Your task to perform on an android device: turn vacation reply on in the gmail app Image 0: 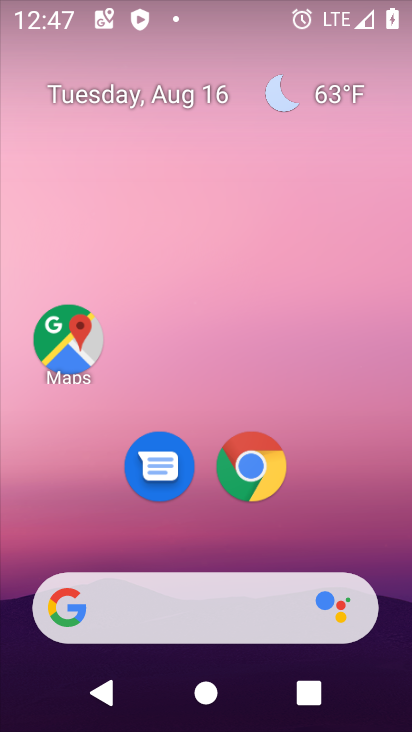
Step 0: drag from (227, 543) to (213, 207)
Your task to perform on an android device: turn vacation reply on in the gmail app Image 1: 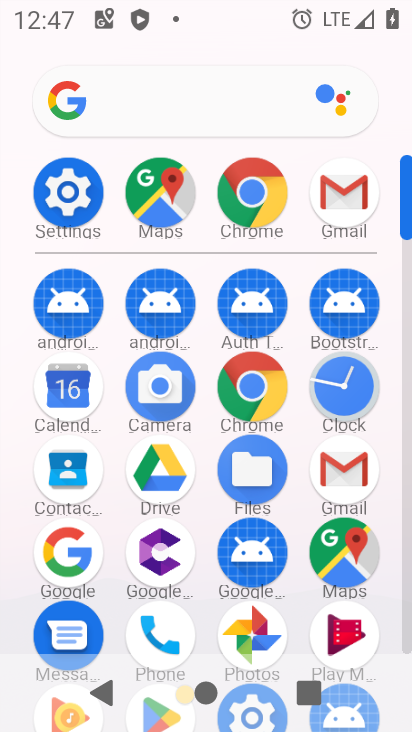
Step 1: click (344, 464)
Your task to perform on an android device: turn vacation reply on in the gmail app Image 2: 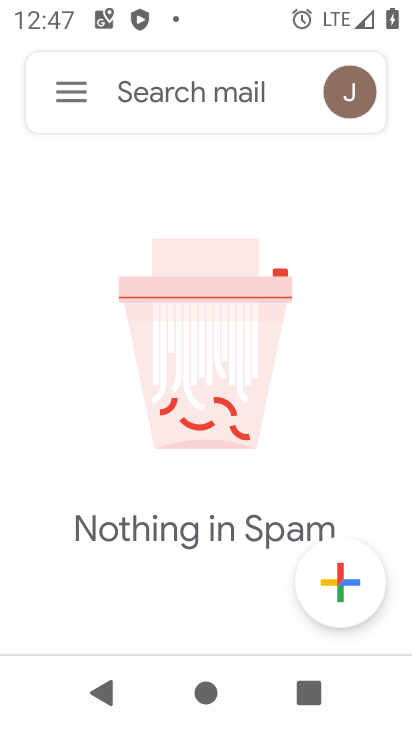
Step 2: click (56, 88)
Your task to perform on an android device: turn vacation reply on in the gmail app Image 3: 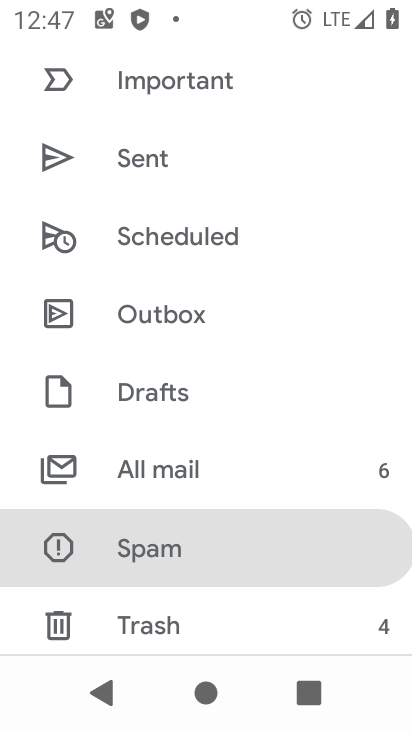
Step 3: drag from (168, 555) to (233, 154)
Your task to perform on an android device: turn vacation reply on in the gmail app Image 4: 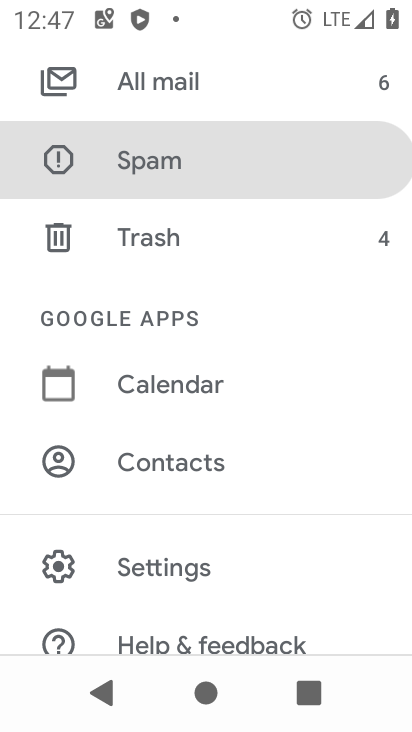
Step 4: click (177, 551)
Your task to perform on an android device: turn vacation reply on in the gmail app Image 5: 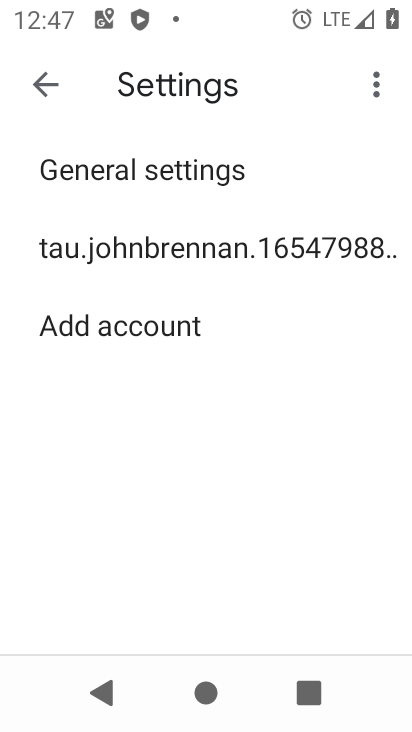
Step 5: click (155, 241)
Your task to perform on an android device: turn vacation reply on in the gmail app Image 6: 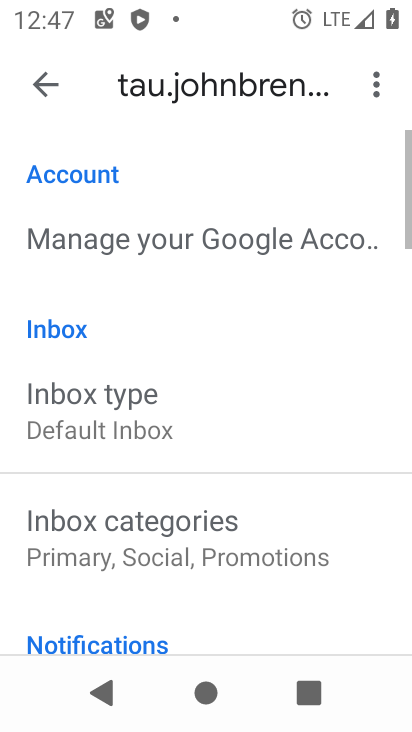
Step 6: drag from (165, 568) to (244, 168)
Your task to perform on an android device: turn vacation reply on in the gmail app Image 7: 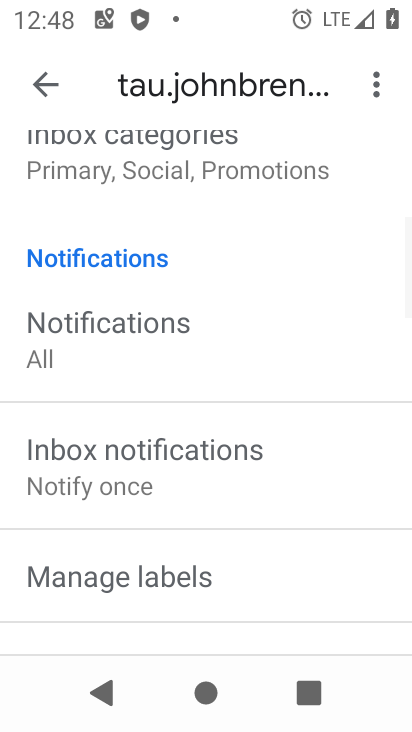
Step 7: drag from (139, 591) to (252, 175)
Your task to perform on an android device: turn vacation reply on in the gmail app Image 8: 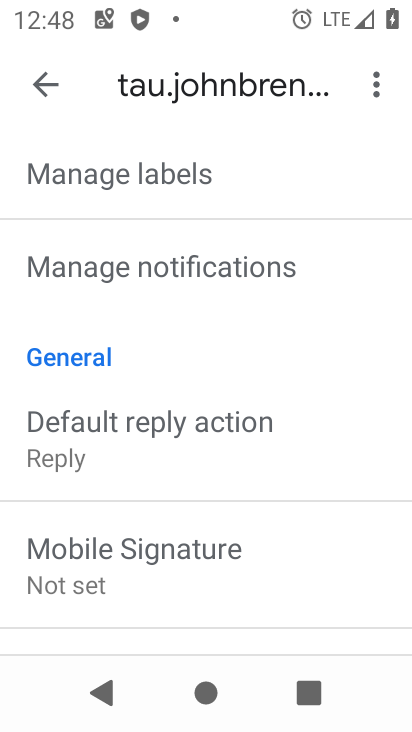
Step 8: drag from (145, 601) to (265, 146)
Your task to perform on an android device: turn vacation reply on in the gmail app Image 9: 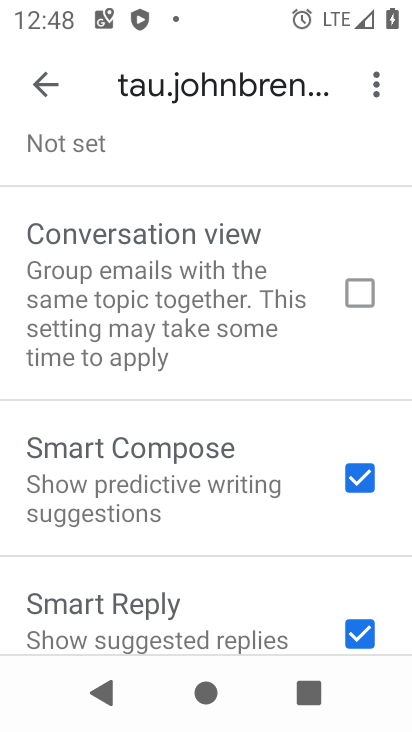
Step 9: drag from (150, 559) to (260, 201)
Your task to perform on an android device: turn vacation reply on in the gmail app Image 10: 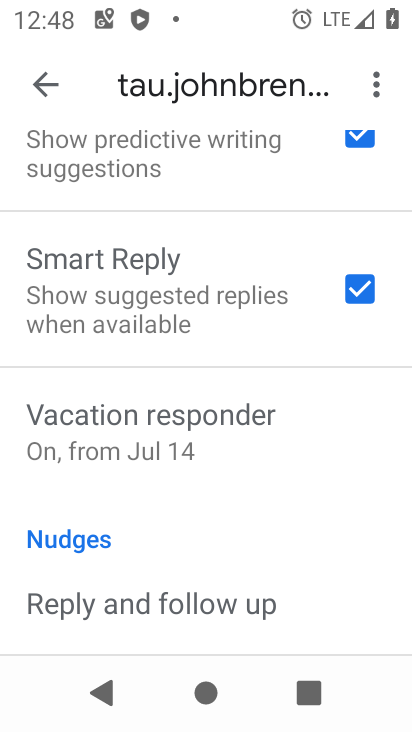
Step 10: click (173, 415)
Your task to perform on an android device: turn vacation reply on in the gmail app Image 11: 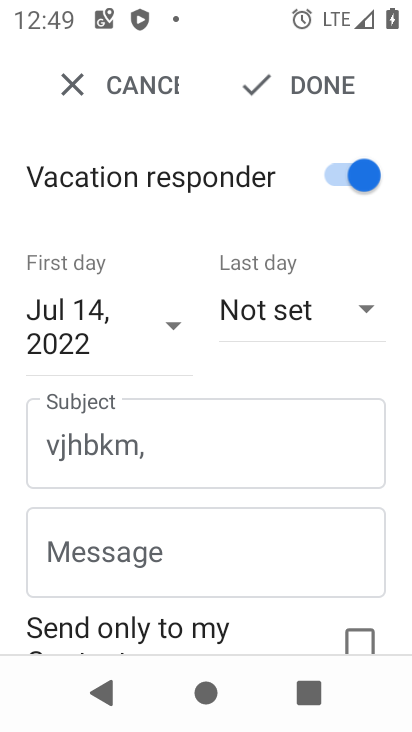
Step 11: task complete